Your task to perform on an android device: change the clock display to digital Image 0: 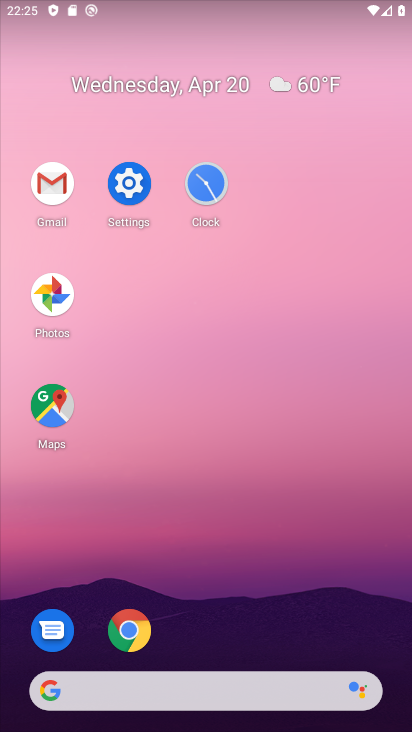
Step 0: click (202, 187)
Your task to perform on an android device: change the clock display to digital Image 1: 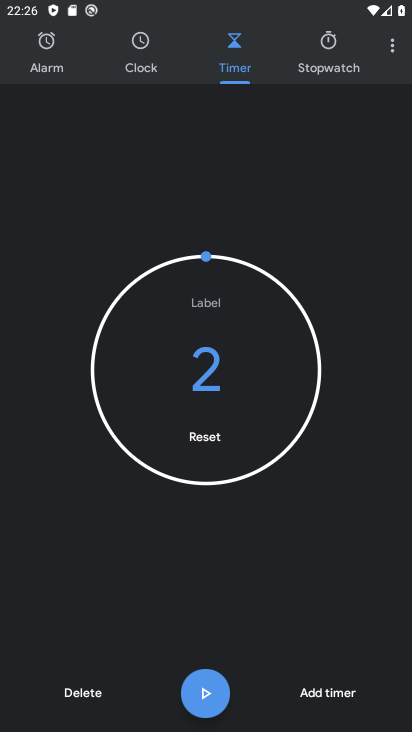
Step 1: click (393, 46)
Your task to perform on an android device: change the clock display to digital Image 2: 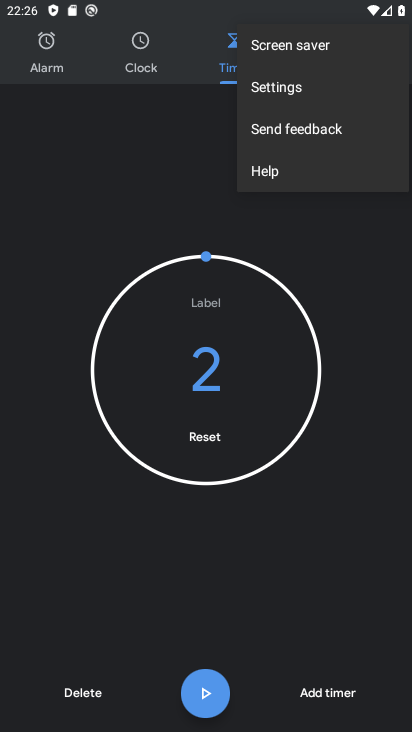
Step 2: click (277, 89)
Your task to perform on an android device: change the clock display to digital Image 3: 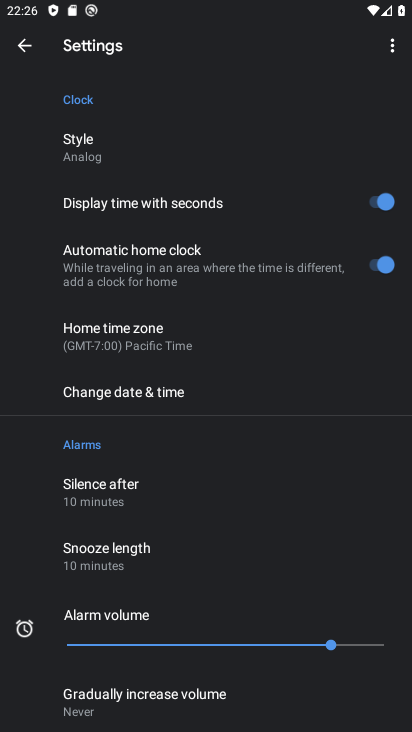
Step 3: click (149, 158)
Your task to perform on an android device: change the clock display to digital Image 4: 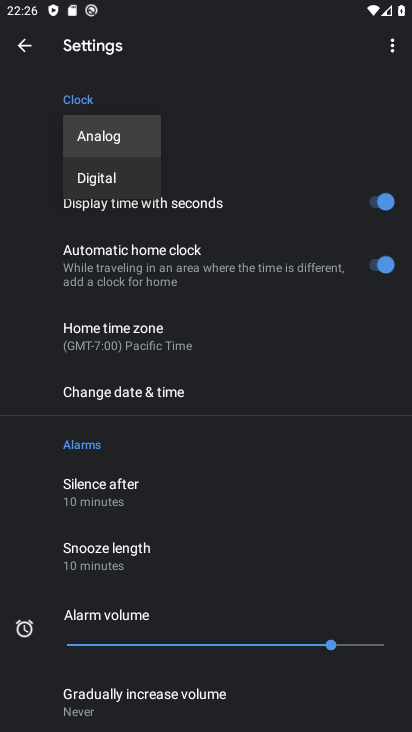
Step 4: click (135, 178)
Your task to perform on an android device: change the clock display to digital Image 5: 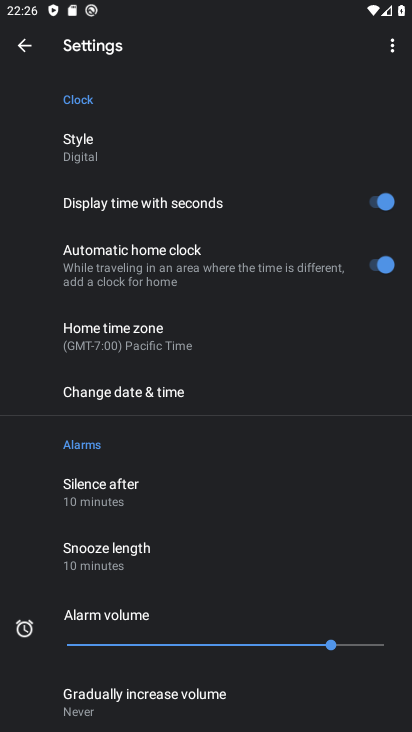
Step 5: task complete